Your task to perform on an android device: Open the phone app and click the voicemail tab. Image 0: 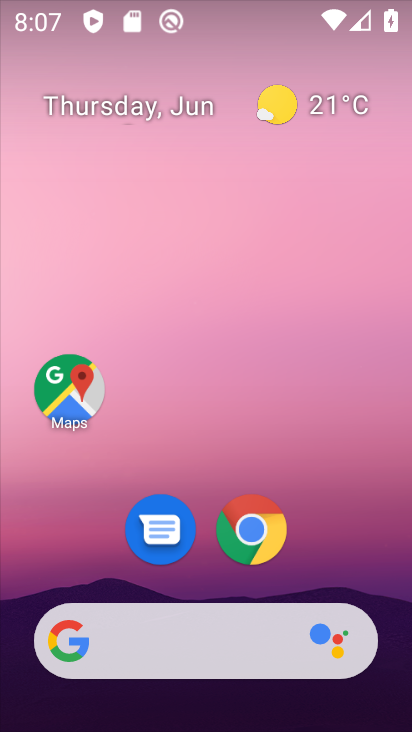
Step 0: drag from (389, 703) to (341, 45)
Your task to perform on an android device: Open the phone app and click the voicemail tab. Image 1: 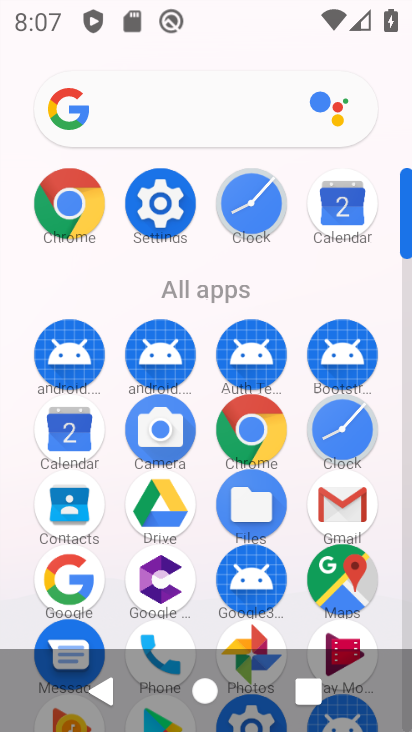
Step 1: click (143, 636)
Your task to perform on an android device: Open the phone app and click the voicemail tab. Image 2: 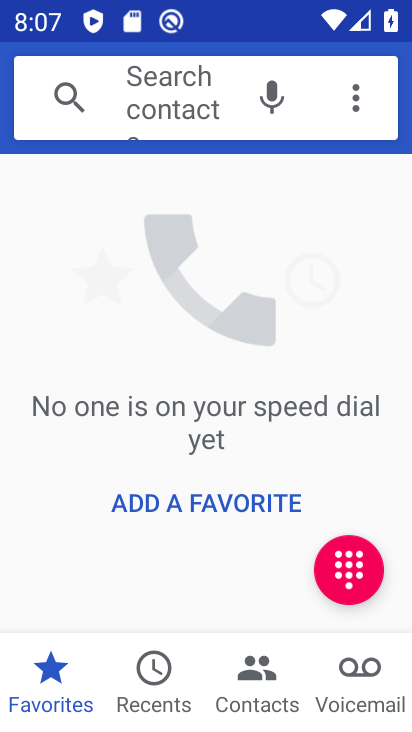
Step 2: click (366, 668)
Your task to perform on an android device: Open the phone app and click the voicemail tab. Image 3: 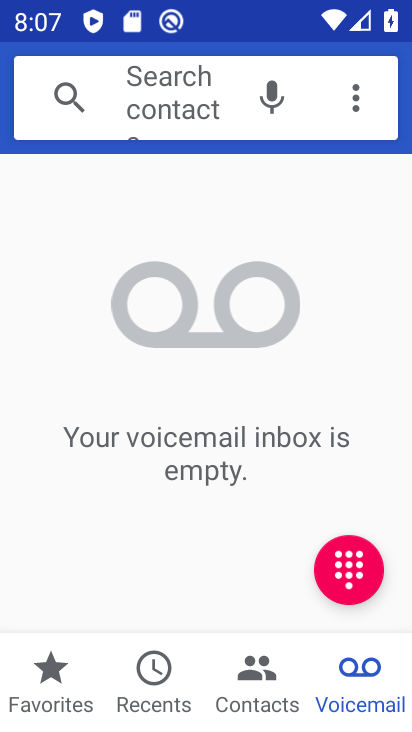
Step 3: task complete